Your task to perform on an android device: Show the shopping cart on bestbuy. Add alienware area 51 to the cart on bestbuy Image 0: 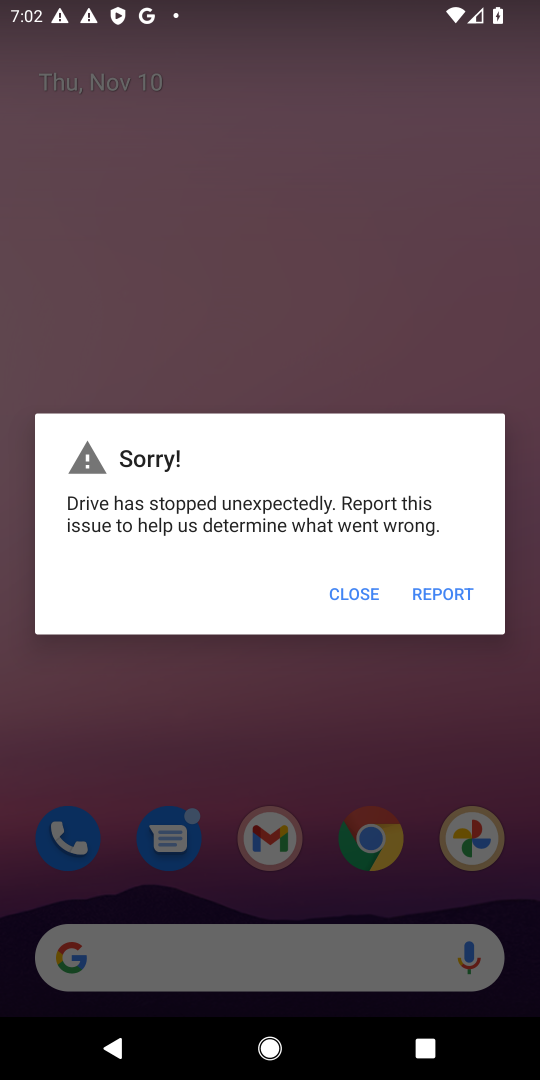
Step 0: press home button
Your task to perform on an android device: Show the shopping cart on bestbuy. Add alienware area 51 to the cart on bestbuy Image 1: 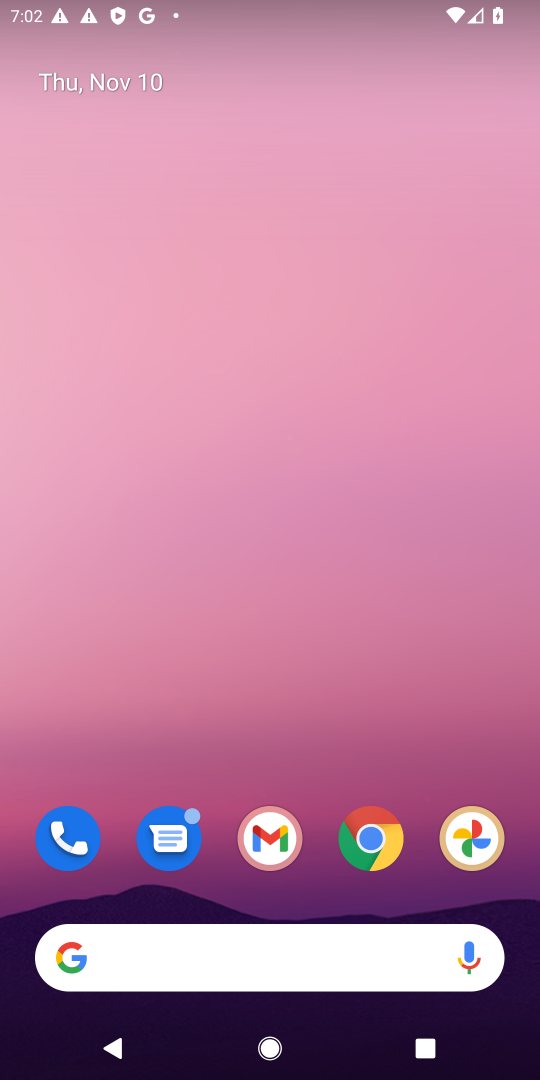
Step 1: drag from (325, 893) to (305, 24)
Your task to perform on an android device: Show the shopping cart on bestbuy. Add alienware area 51 to the cart on bestbuy Image 2: 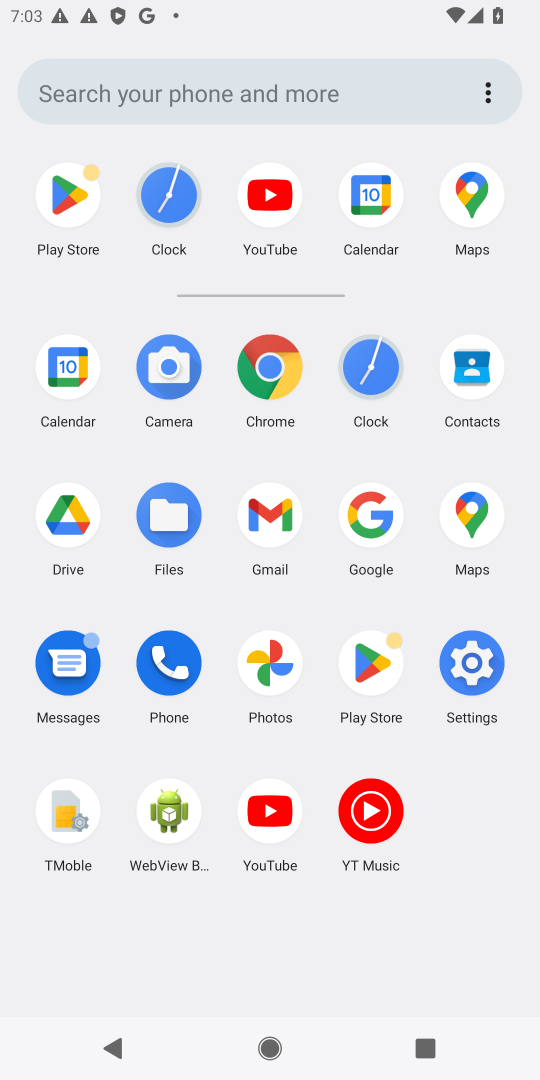
Step 2: click (266, 363)
Your task to perform on an android device: Show the shopping cart on bestbuy. Add alienware area 51 to the cart on bestbuy Image 3: 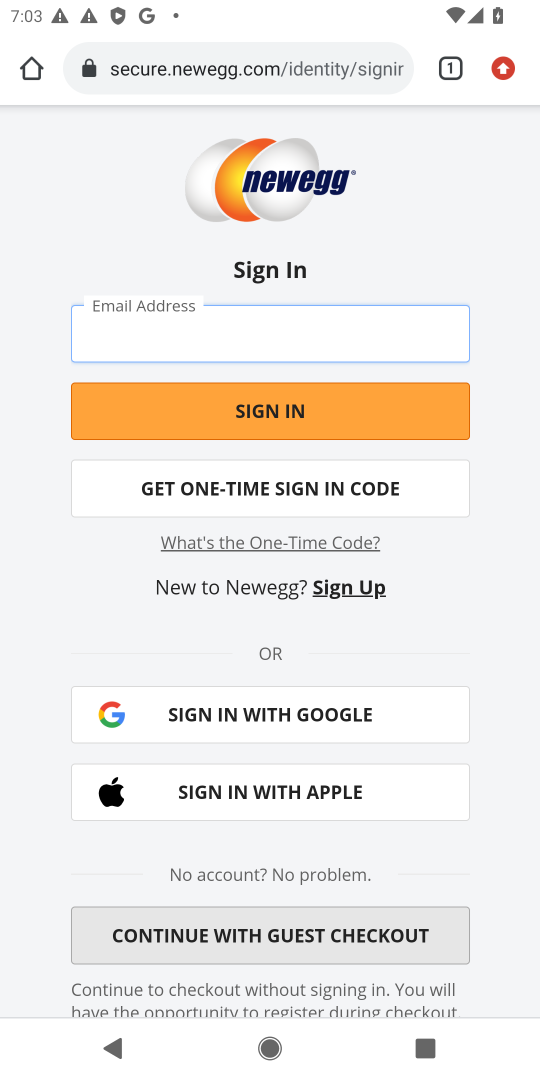
Step 3: click (221, 58)
Your task to perform on an android device: Show the shopping cart on bestbuy. Add alienware area 51 to the cart on bestbuy Image 4: 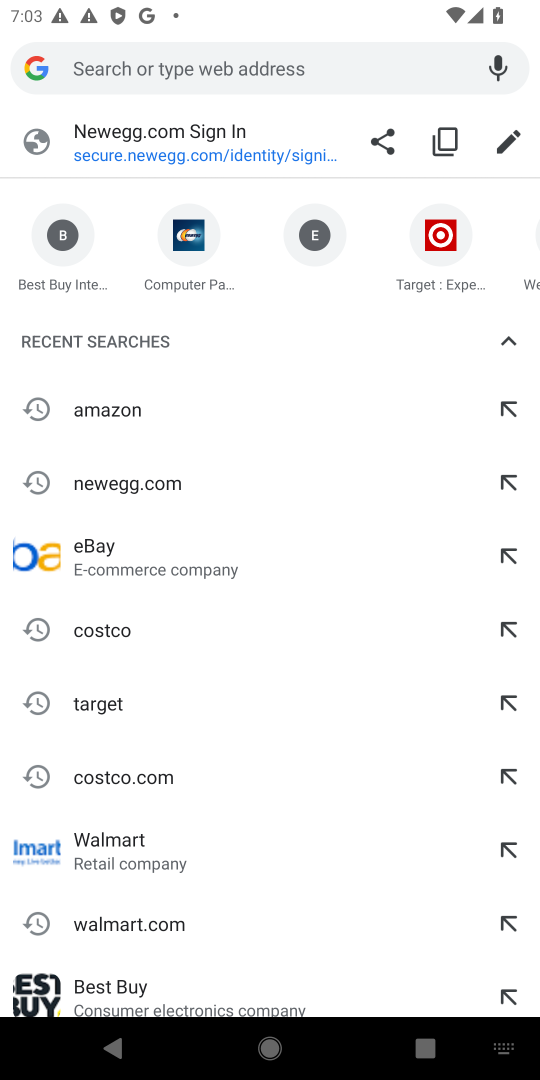
Step 4: type "bestbuy.com"
Your task to perform on an android device: Show the shopping cart on bestbuy. Add alienware area 51 to the cart on bestbuy Image 5: 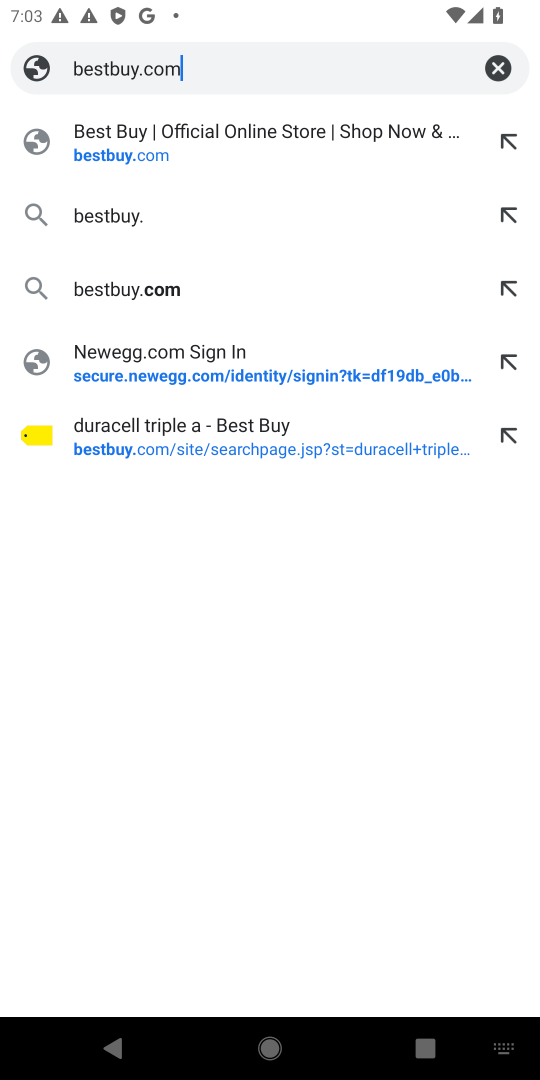
Step 5: press enter
Your task to perform on an android device: Show the shopping cart on bestbuy. Add alienware area 51 to the cart on bestbuy Image 6: 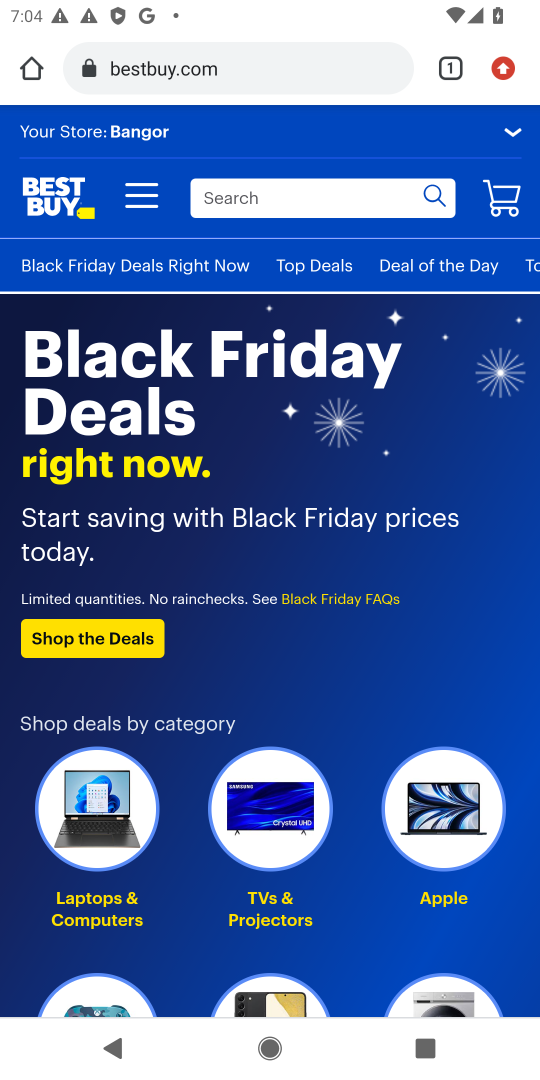
Step 6: click (508, 183)
Your task to perform on an android device: Show the shopping cart on bestbuy. Add alienware area 51 to the cart on bestbuy Image 7: 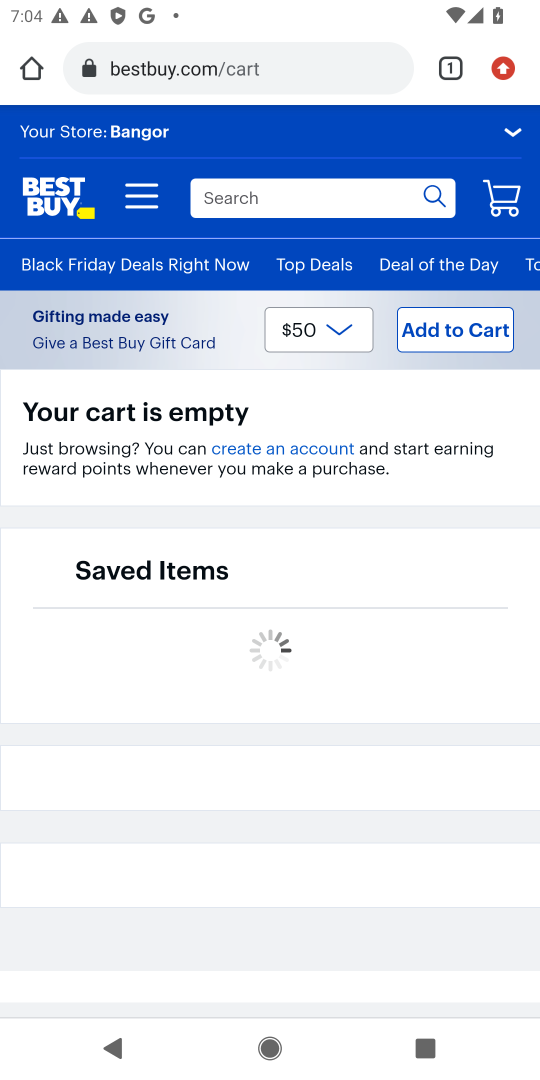
Step 7: click (340, 190)
Your task to perform on an android device: Show the shopping cart on bestbuy. Add alienware area 51 to the cart on bestbuy Image 8: 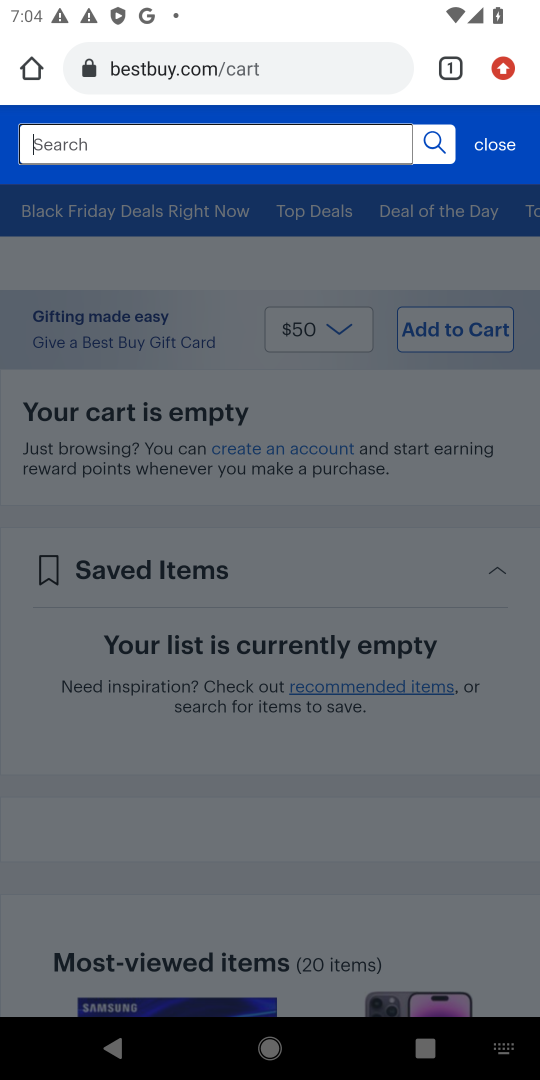
Step 8: type "alienware area 51"
Your task to perform on an android device: Show the shopping cart on bestbuy. Add alienware area 51 to the cart on bestbuy Image 9: 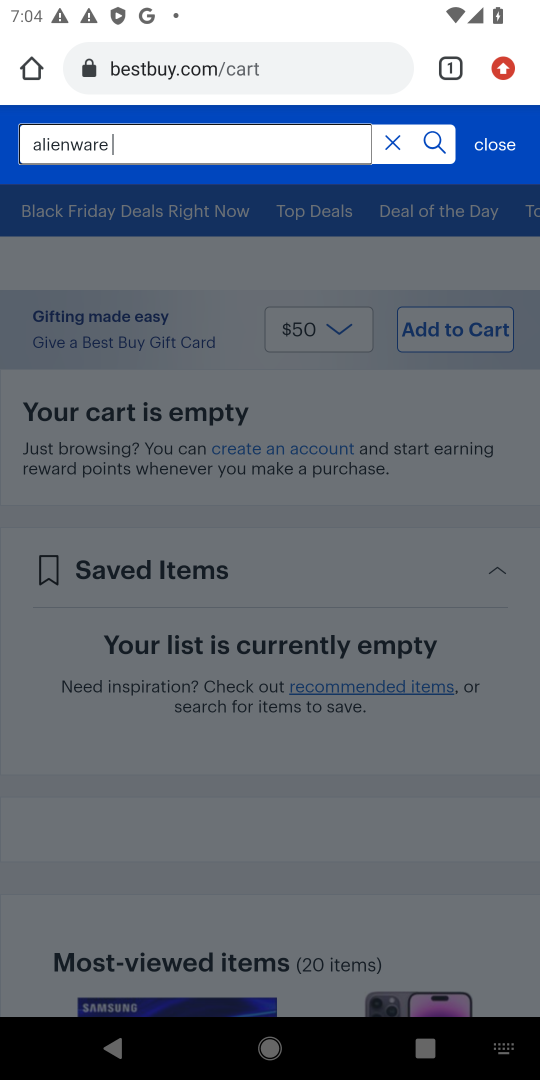
Step 9: press enter
Your task to perform on an android device: Show the shopping cart on bestbuy. Add alienware area 51 to the cart on bestbuy Image 10: 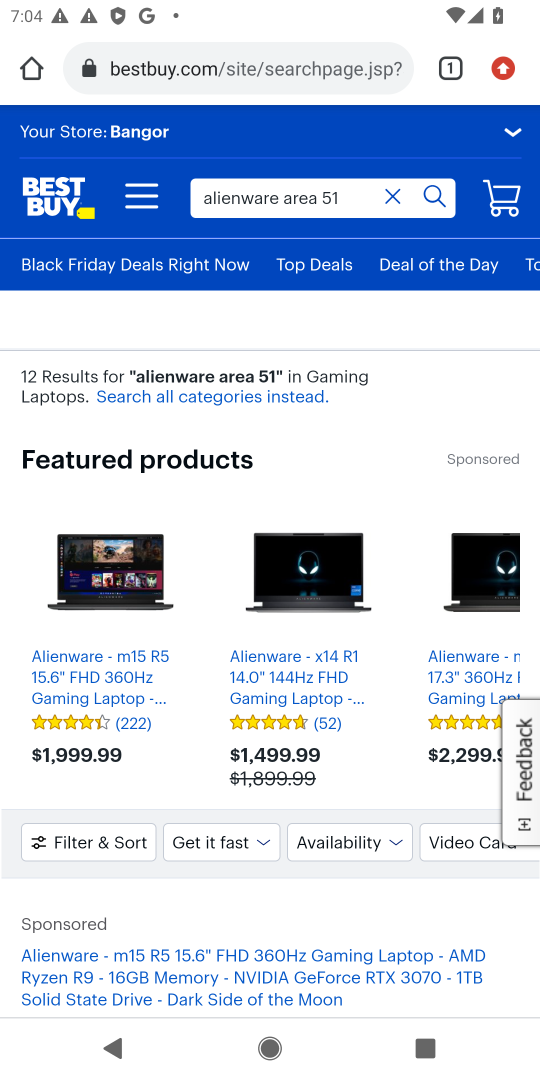
Step 10: task complete